Your task to perform on an android device: Go to display settings Image 0: 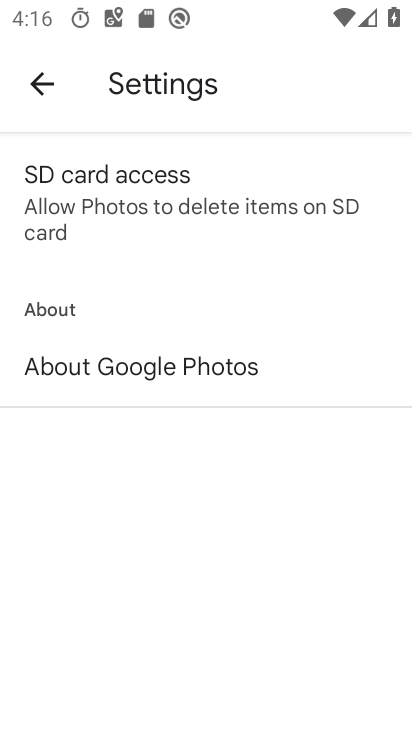
Step 0: press home button
Your task to perform on an android device: Go to display settings Image 1: 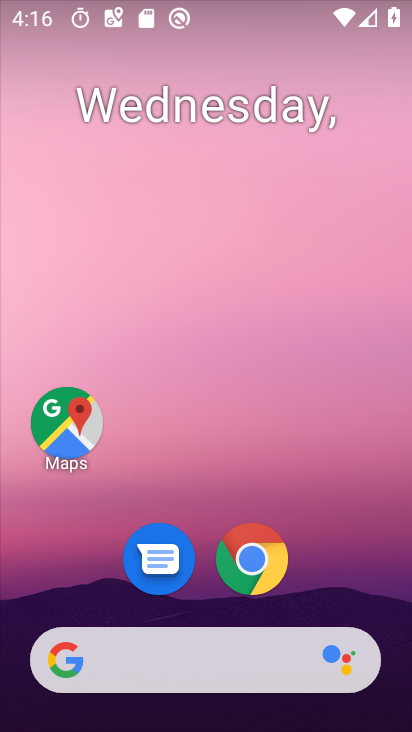
Step 1: drag from (343, 572) to (212, 59)
Your task to perform on an android device: Go to display settings Image 2: 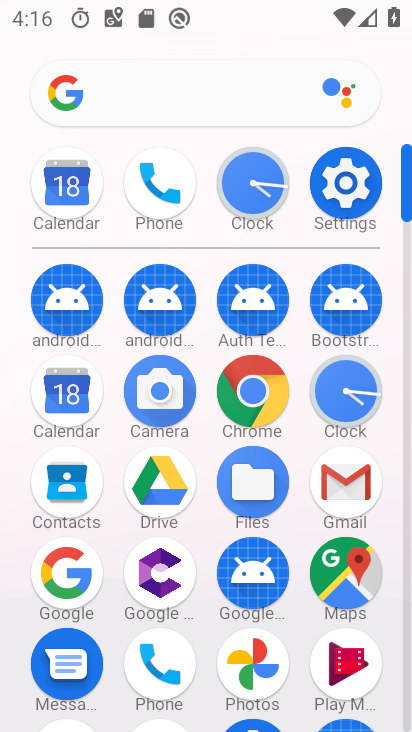
Step 2: click (346, 197)
Your task to perform on an android device: Go to display settings Image 3: 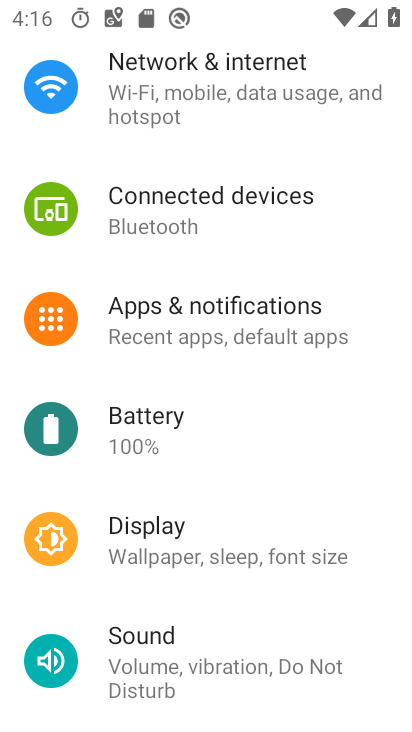
Step 3: click (231, 534)
Your task to perform on an android device: Go to display settings Image 4: 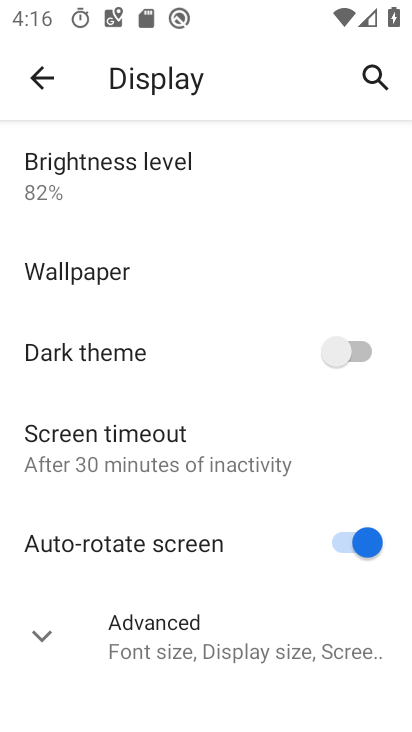
Step 4: task complete